Your task to perform on an android device: turn notification dots off Image 0: 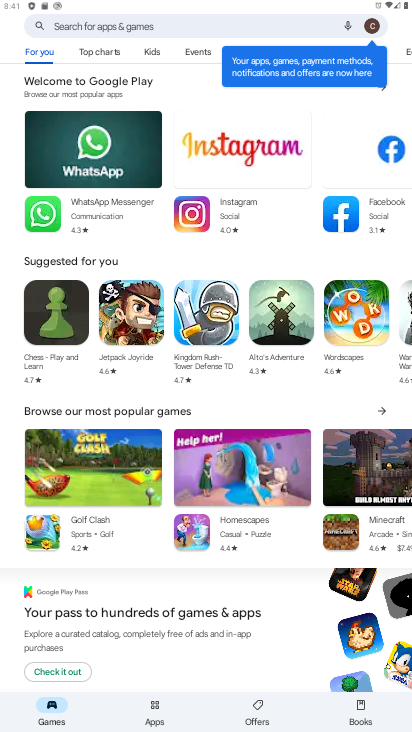
Step 0: press home button
Your task to perform on an android device: turn notification dots off Image 1: 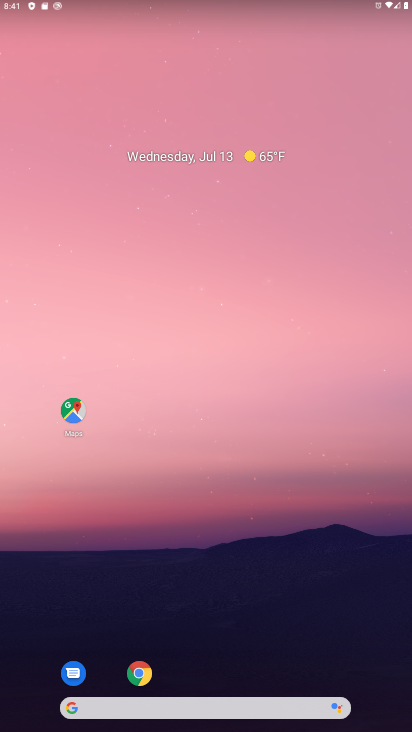
Step 1: drag from (195, 701) to (341, 72)
Your task to perform on an android device: turn notification dots off Image 2: 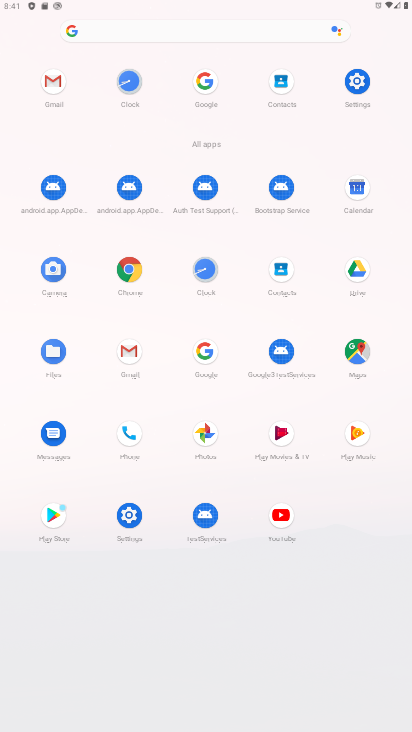
Step 2: click (358, 78)
Your task to perform on an android device: turn notification dots off Image 3: 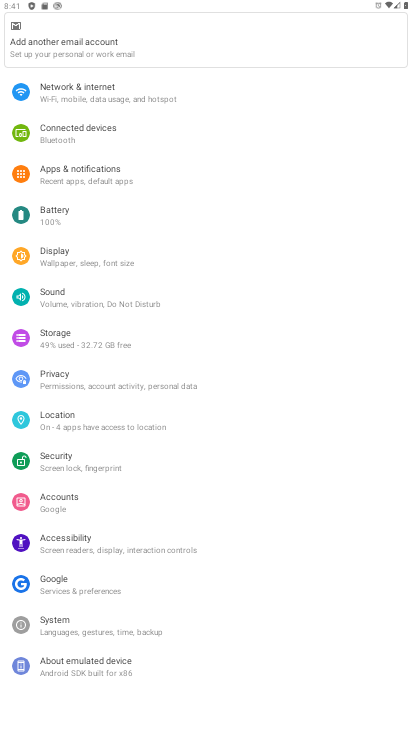
Step 3: click (102, 173)
Your task to perform on an android device: turn notification dots off Image 4: 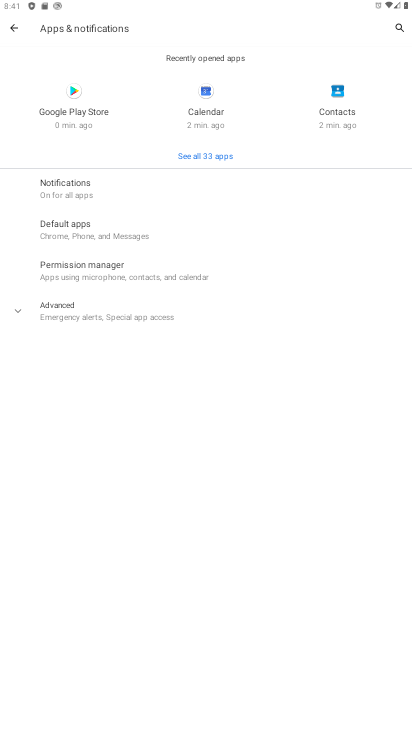
Step 4: click (71, 192)
Your task to perform on an android device: turn notification dots off Image 5: 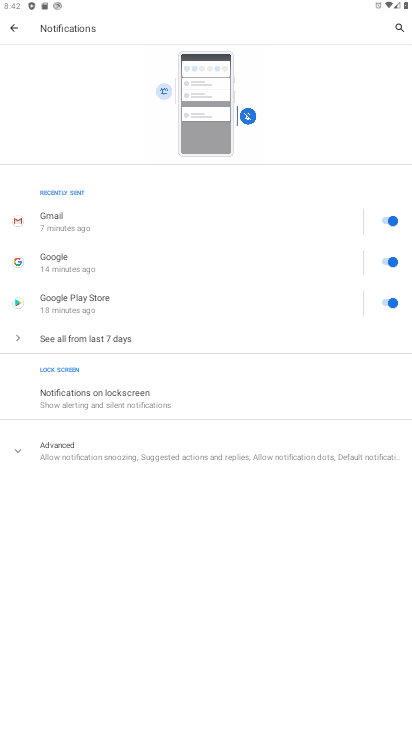
Step 5: click (84, 452)
Your task to perform on an android device: turn notification dots off Image 6: 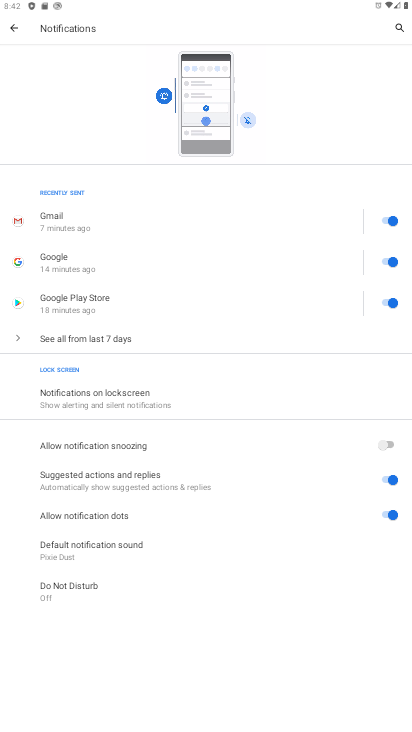
Step 6: click (395, 516)
Your task to perform on an android device: turn notification dots off Image 7: 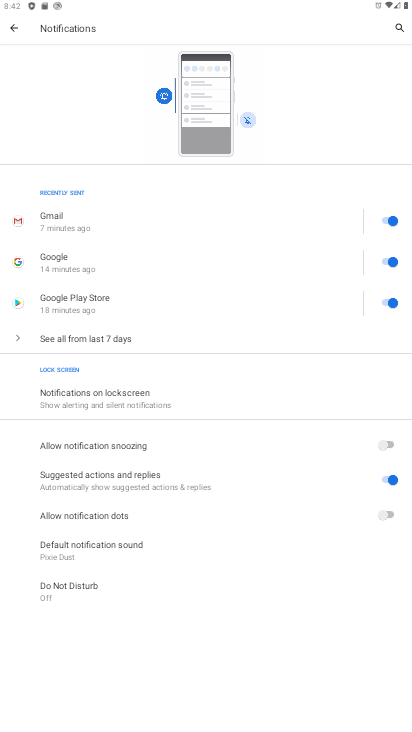
Step 7: task complete